Your task to perform on an android device: remove spam from my inbox in the gmail app Image 0: 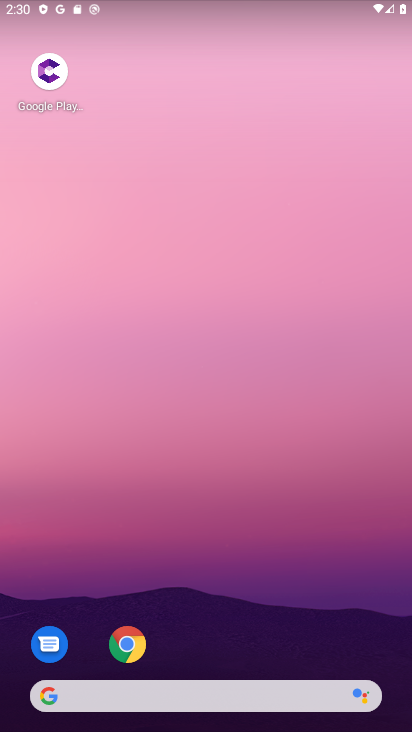
Step 0: drag from (225, 642) to (139, 111)
Your task to perform on an android device: remove spam from my inbox in the gmail app Image 1: 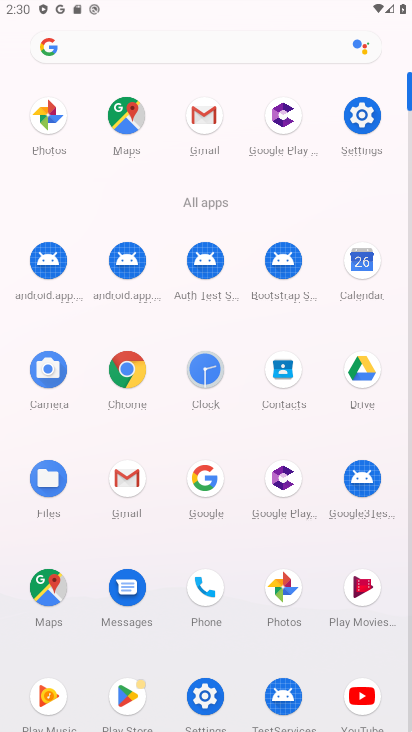
Step 1: click (140, 473)
Your task to perform on an android device: remove spam from my inbox in the gmail app Image 2: 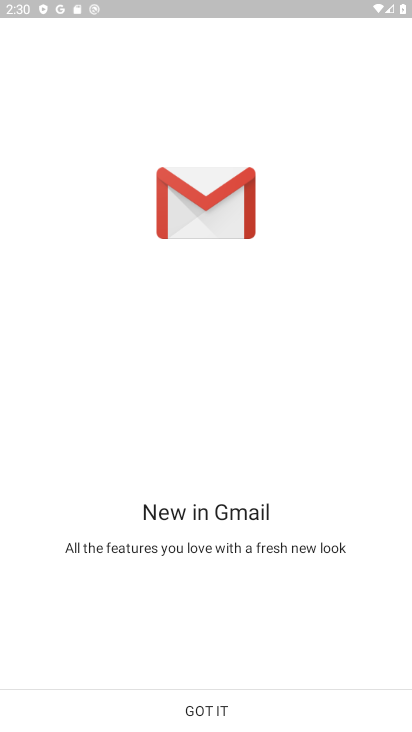
Step 2: click (242, 699)
Your task to perform on an android device: remove spam from my inbox in the gmail app Image 3: 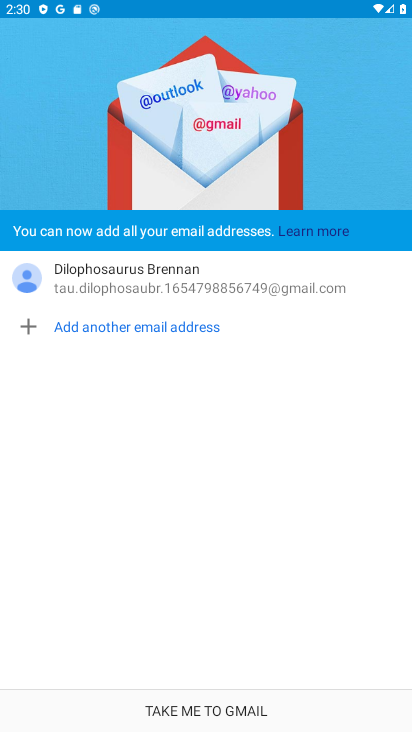
Step 3: click (195, 704)
Your task to perform on an android device: remove spam from my inbox in the gmail app Image 4: 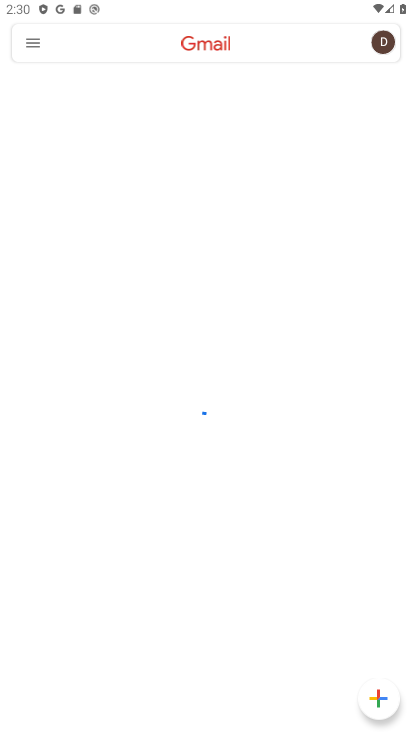
Step 4: click (33, 49)
Your task to perform on an android device: remove spam from my inbox in the gmail app Image 5: 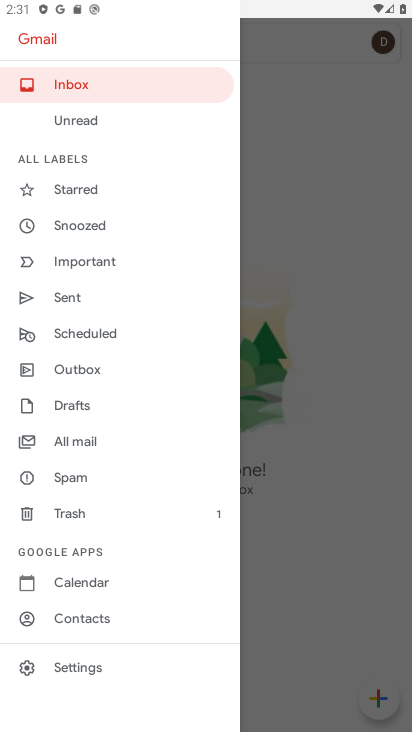
Step 5: click (82, 474)
Your task to perform on an android device: remove spam from my inbox in the gmail app Image 6: 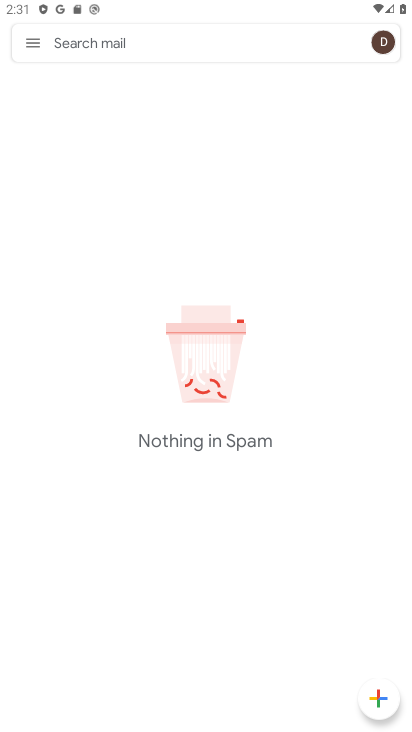
Step 6: task complete